Your task to perform on an android device: Open Reddit.com Image 0: 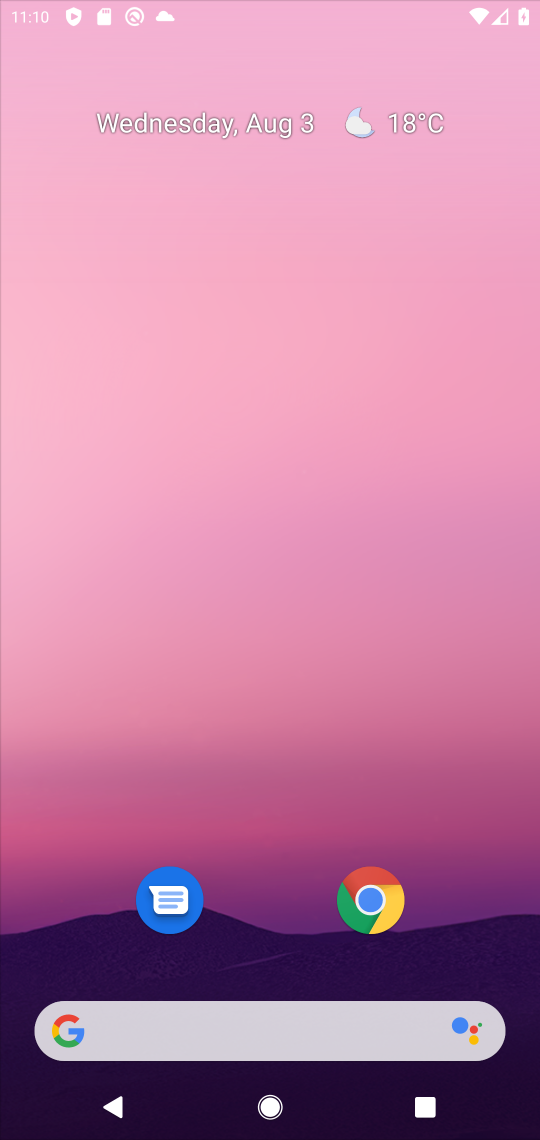
Step 0: press home button
Your task to perform on an android device: Open Reddit.com Image 1: 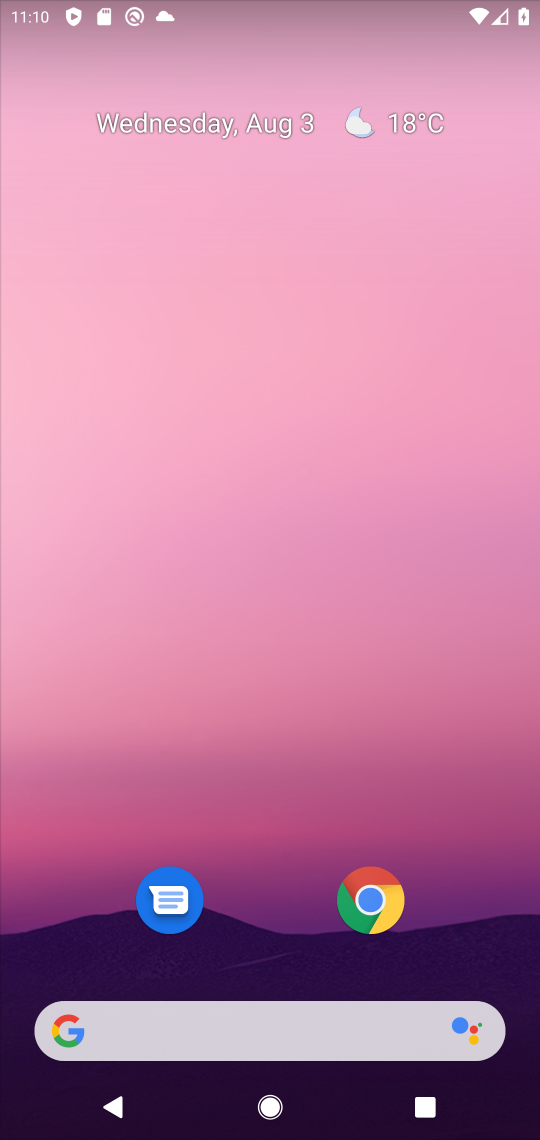
Step 1: click (64, 1030)
Your task to perform on an android device: Open Reddit.com Image 2: 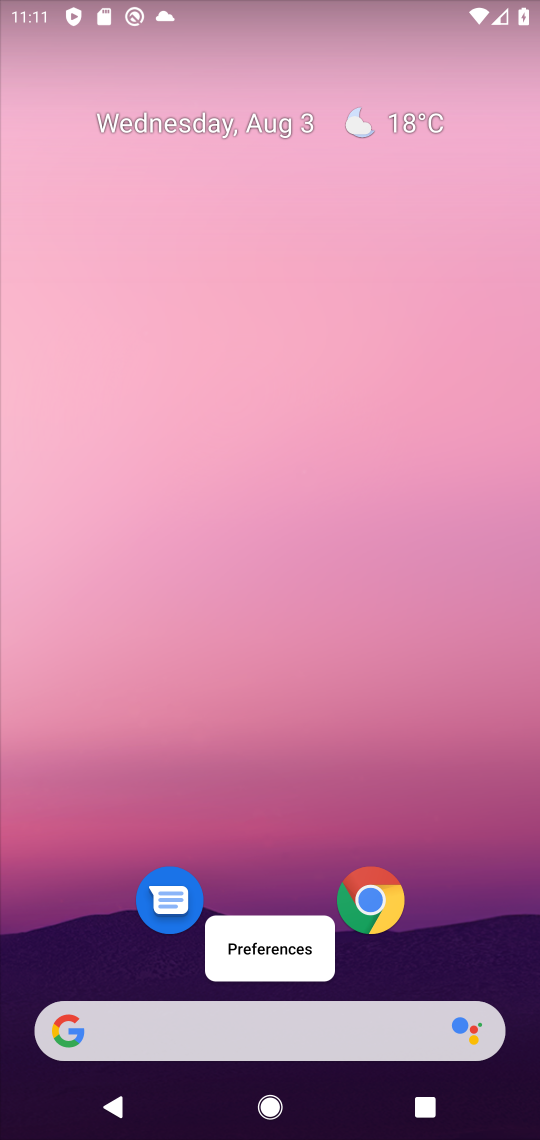
Step 2: click (64, 1033)
Your task to perform on an android device: Open Reddit.com Image 3: 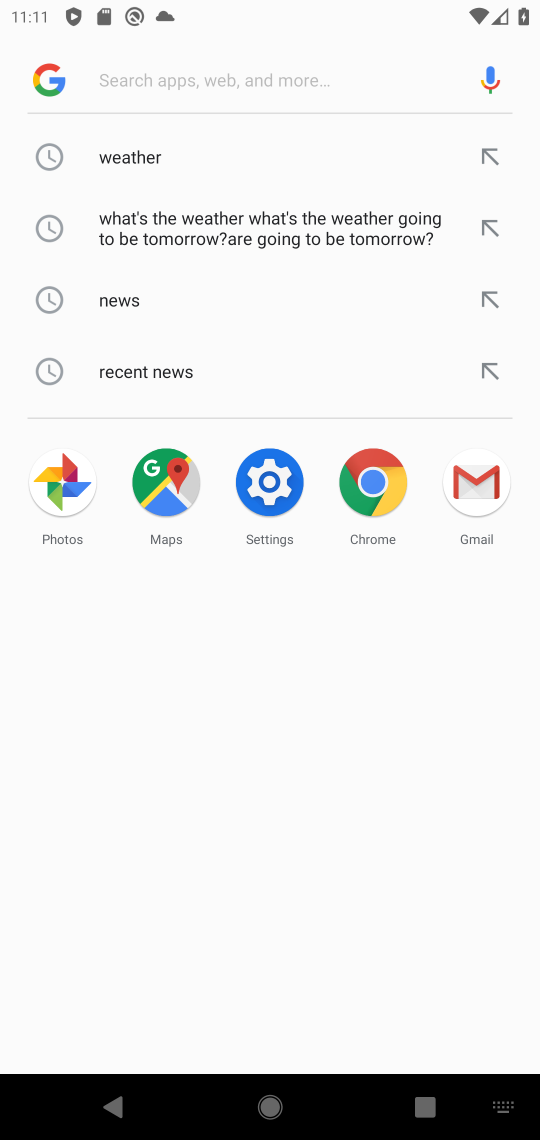
Step 3: type "Reddit.com"
Your task to perform on an android device: Open Reddit.com Image 4: 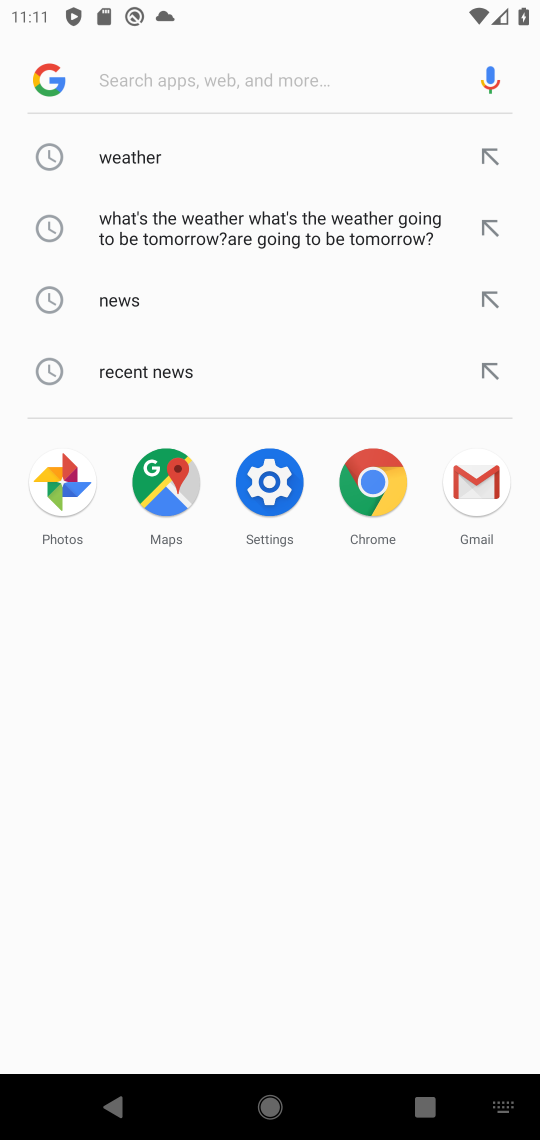
Step 4: click (214, 70)
Your task to perform on an android device: Open Reddit.com Image 5: 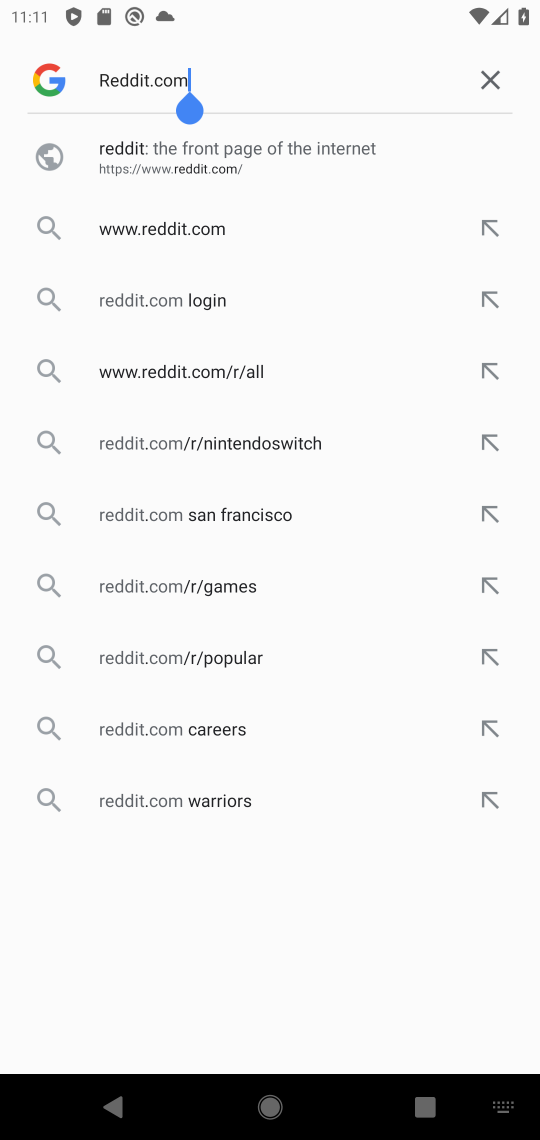
Step 5: press enter
Your task to perform on an android device: Open Reddit.com Image 6: 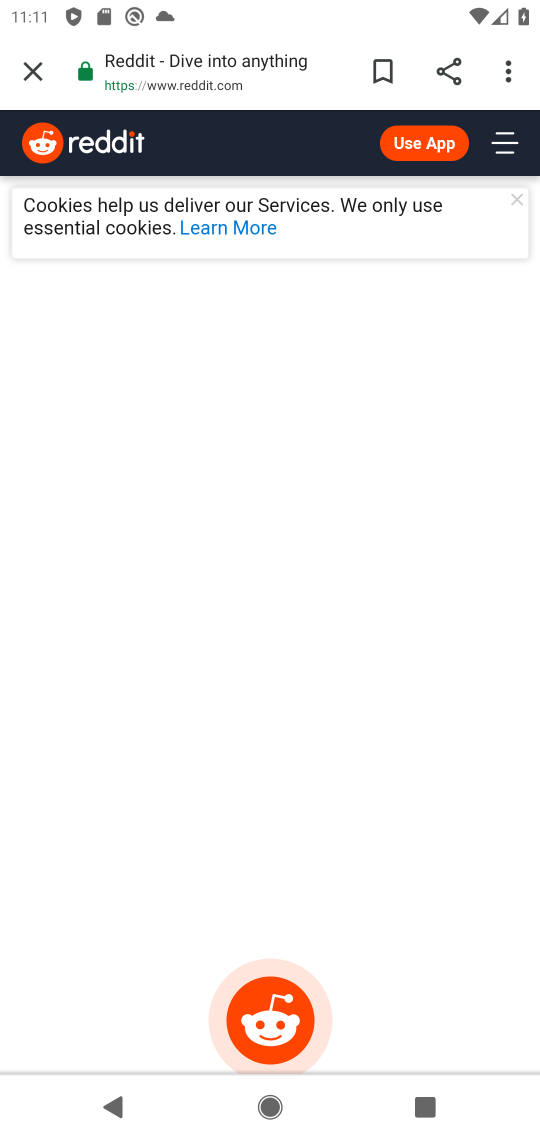
Step 6: task complete